Your task to perform on an android device: Do I have any events tomorrow? Image 0: 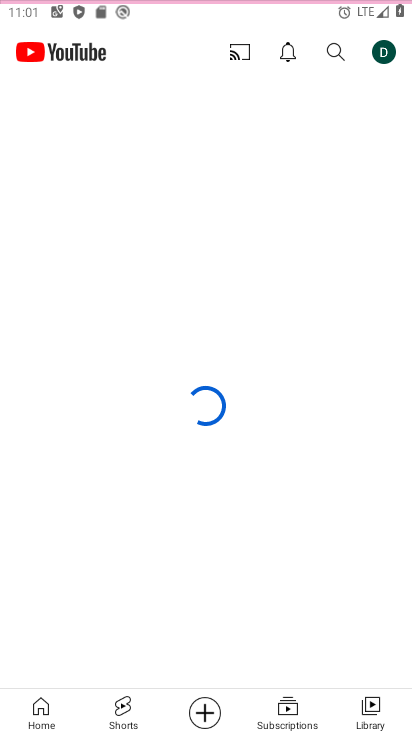
Step 0: click (317, 123)
Your task to perform on an android device: Do I have any events tomorrow? Image 1: 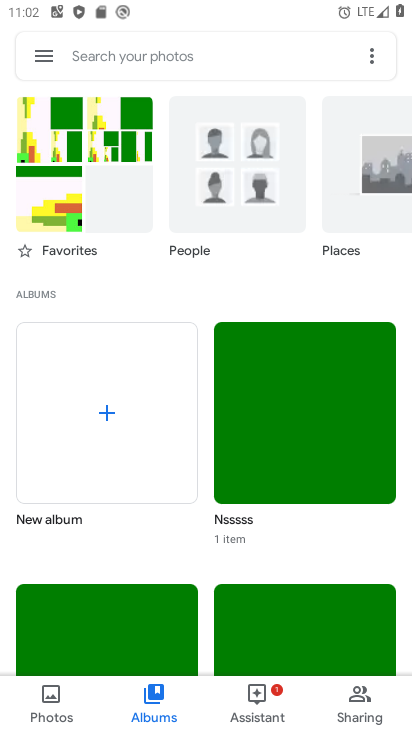
Step 1: press home button
Your task to perform on an android device: Do I have any events tomorrow? Image 2: 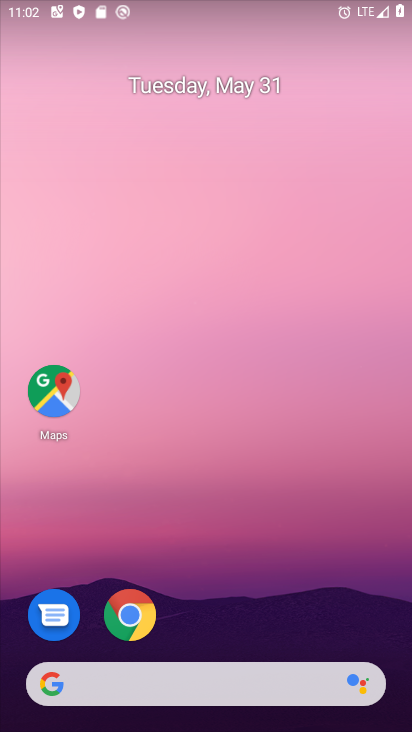
Step 2: drag from (319, 638) to (333, 63)
Your task to perform on an android device: Do I have any events tomorrow? Image 3: 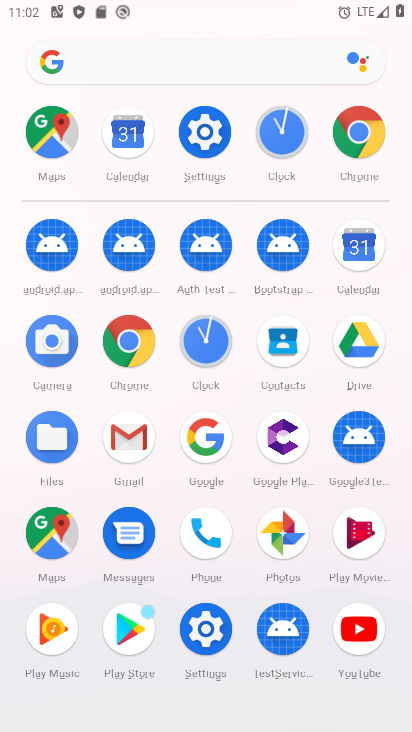
Step 3: click (357, 258)
Your task to perform on an android device: Do I have any events tomorrow? Image 4: 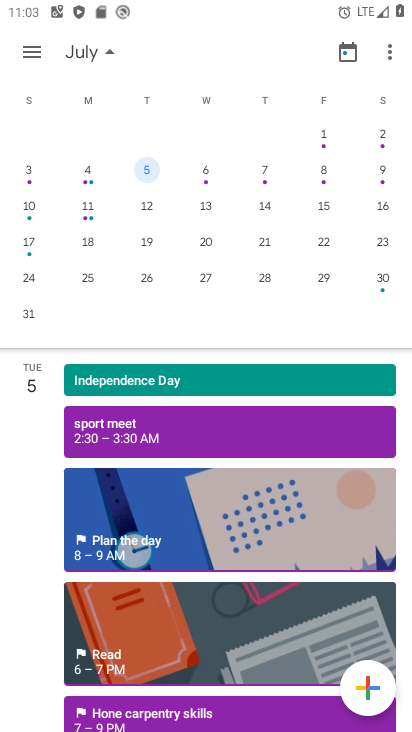
Step 4: click (203, 186)
Your task to perform on an android device: Do I have any events tomorrow? Image 5: 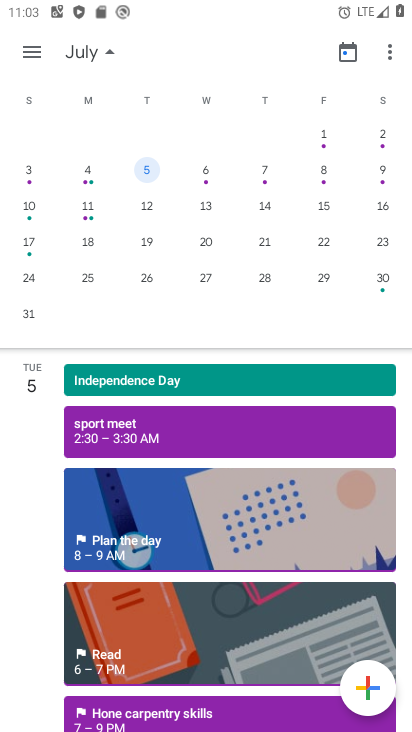
Step 5: click (198, 168)
Your task to perform on an android device: Do I have any events tomorrow? Image 6: 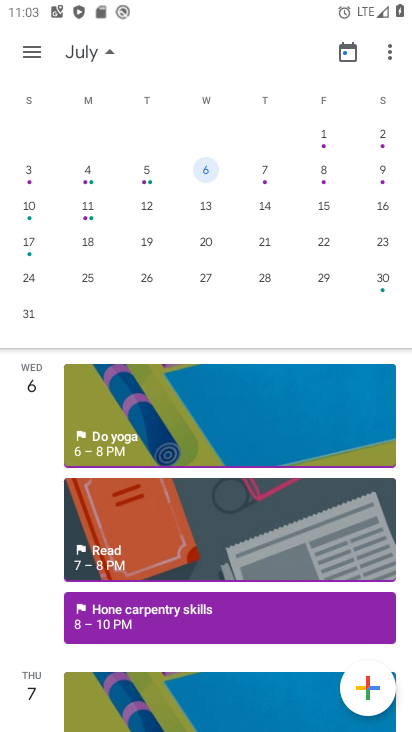
Step 6: task complete